Your task to perform on an android device: Open Google Maps and go to "Timeline" Image 0: 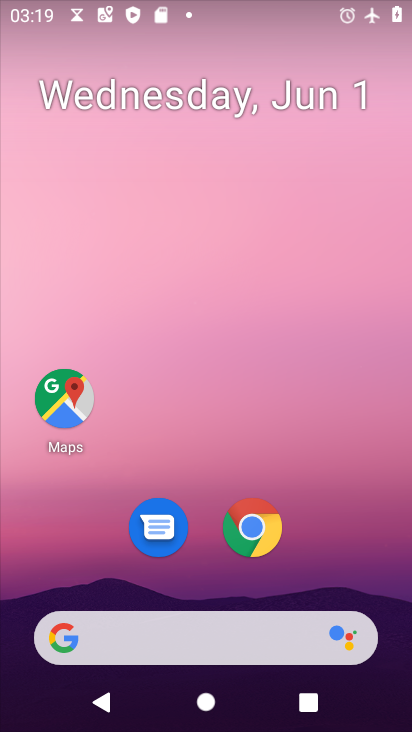
Step 0: drag from (316, 576) to (268, 53)
Your task to perform on an android device: Open Google Maps and go to "Timeline" Image 1: 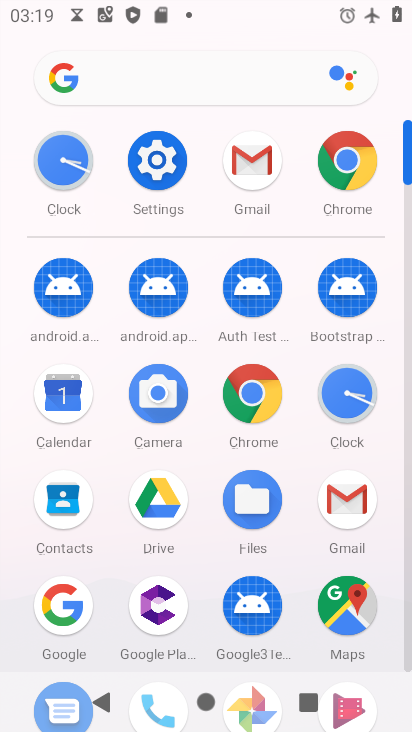
Step 1: drag from (199, 560) to (200, 350)
Your task to perform on an android device: Open Google Maps and go to "Timeline" Image 2: 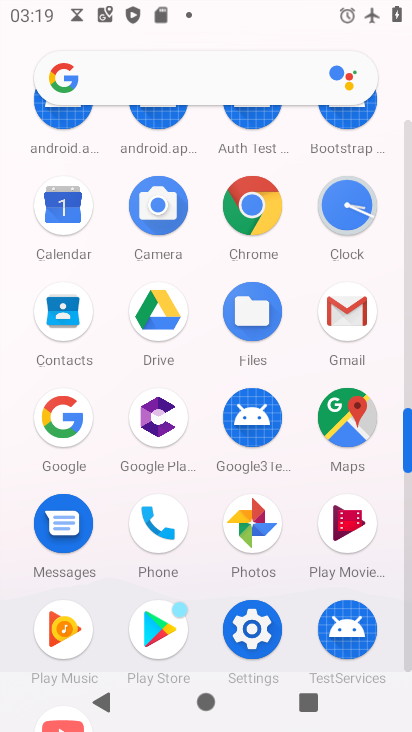
Step 2: click (346, 416)
Your task to perform on an android device: Open Google Maps and go to "Timeline" Image 3: 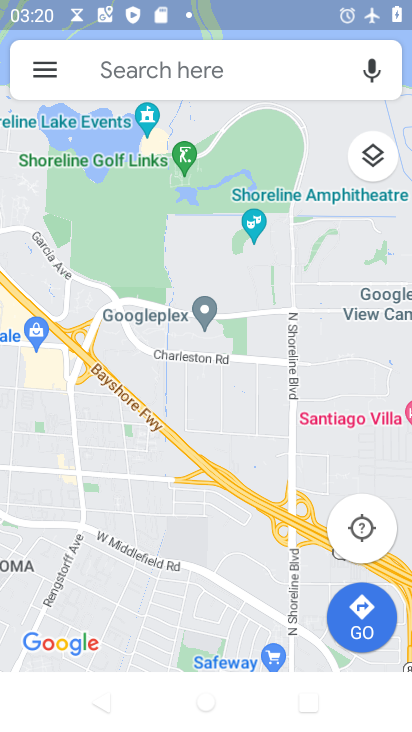
Step 3: click (46, 75)
Your task to perform on an android device: Open Google Maps and go to "Timeline" Image 4: 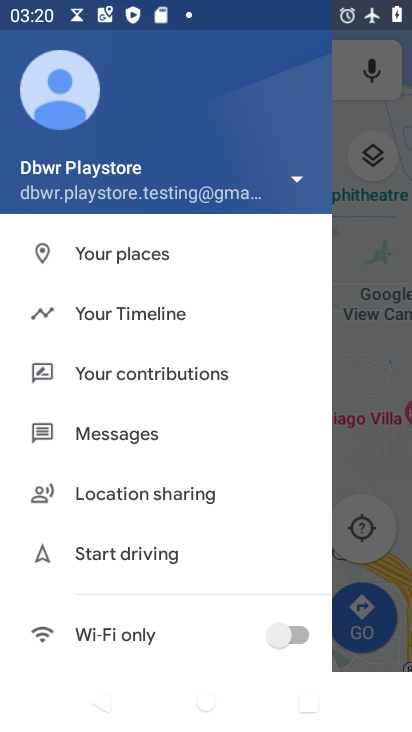
Step 4: click (123, 318)
Your task to perform on an android device: Open Google Maps and go to "Timeline" Image 5: 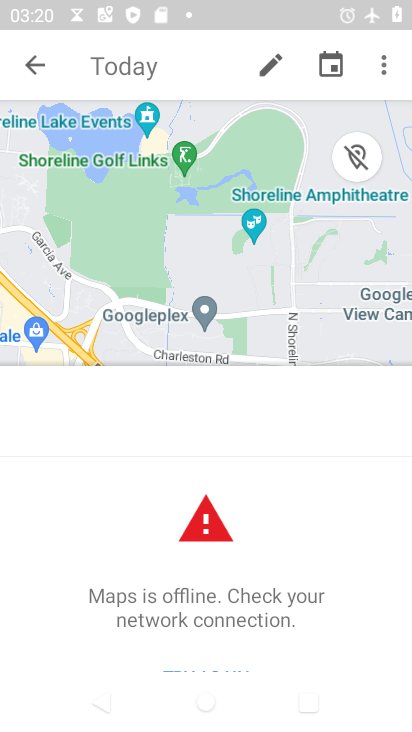
Step 5: task complete